Your task to perform on an android device: turn on showing notifications on the lock screen Image 0: 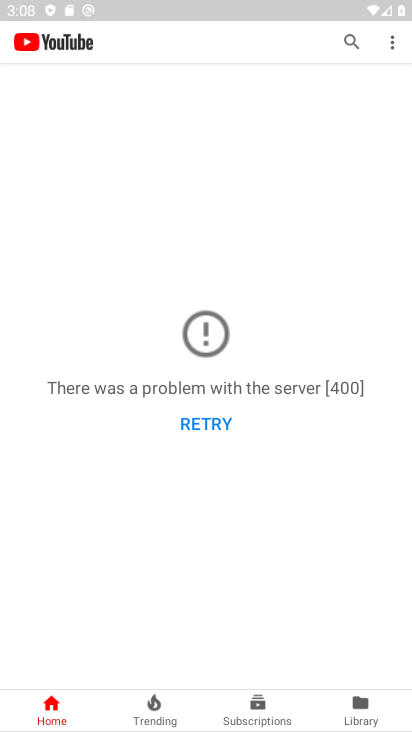
Step 0: press home button
Your task to perform on an android device: turn on showing notifications on the lock screen Image 1: 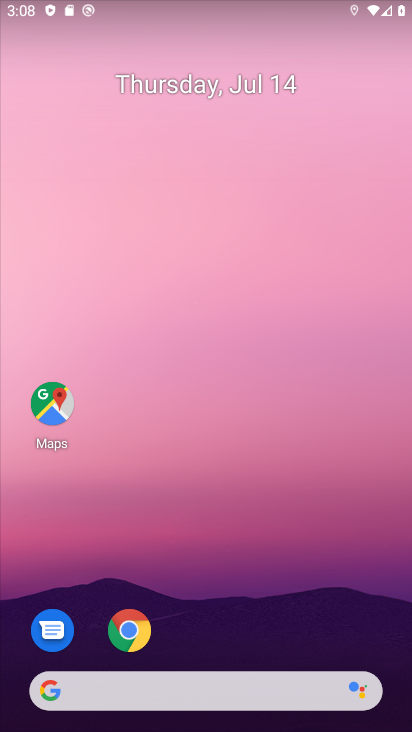
Step 1: drag from (306, 549) to (160, 14)
Your task to perform on an android device: turn on showing notifications on the lock screen Image 2: 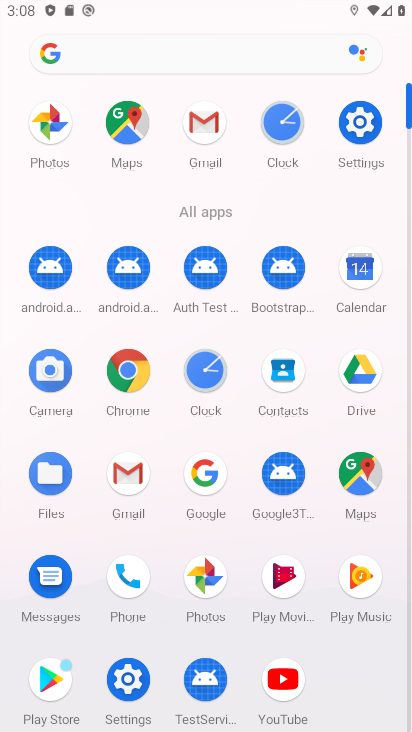
Step 2: click (134, 684)
Your task to perform on an android device: turn on showing notifications on the lock screen Image 3: 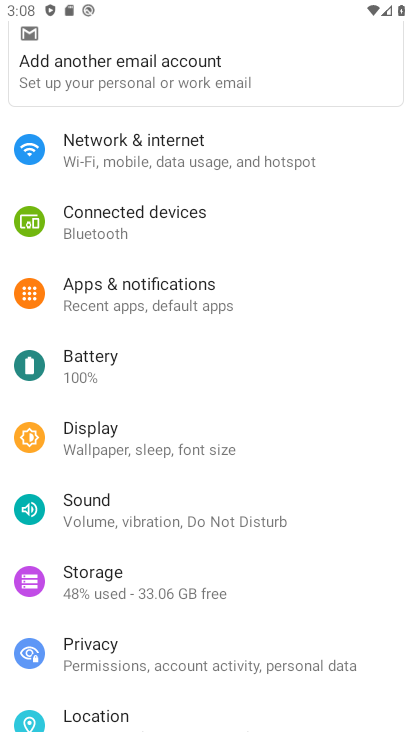
Step 3: click (182, 292)
Your task to perform on an android device: turn on showing notifications on the lock screen Image 4: 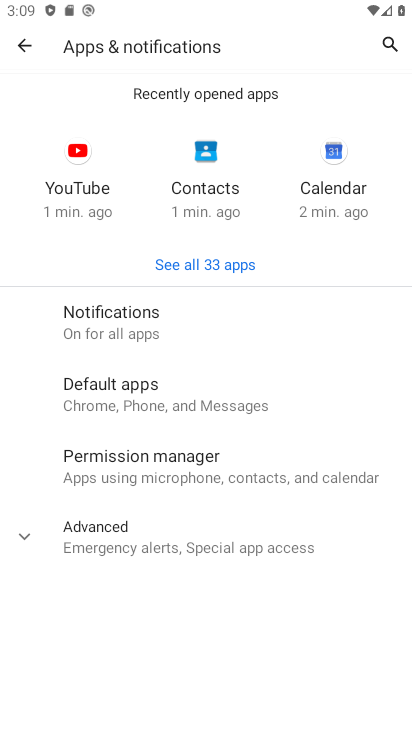
Step 4: click (103, 338)
Your task to perform on an android device: turn on showing notifications on the lock screen Image 5: 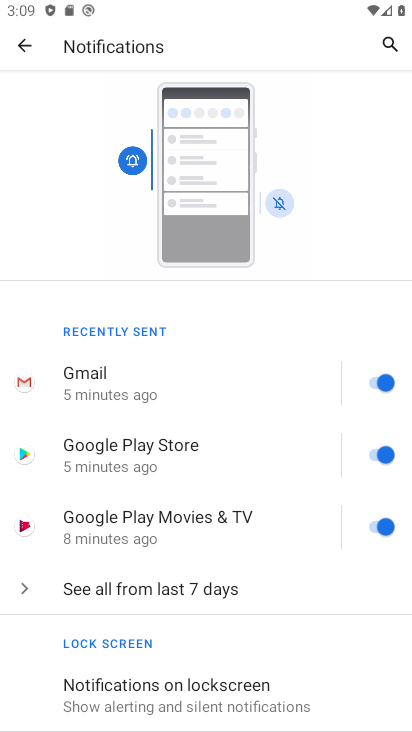
Step 5: drag from (278, 659) to (120, 360)
Your task to perform on an android device: turn on showing notifications on the lock screen Image 6: 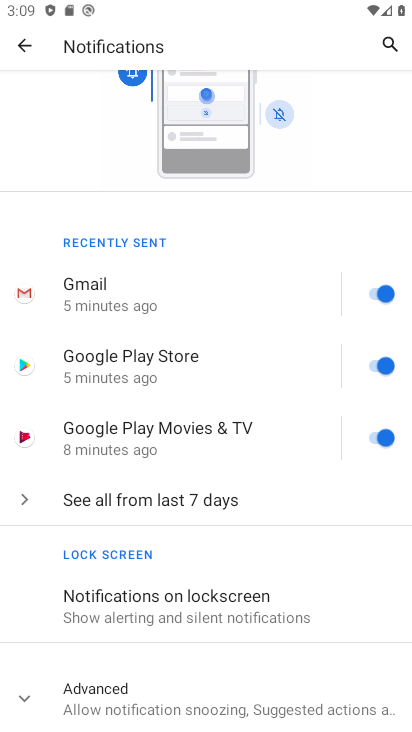
Step 6: click (249, 604)
Your task to perform on an android device: turn on showing notifications on the lock screen Image 7: 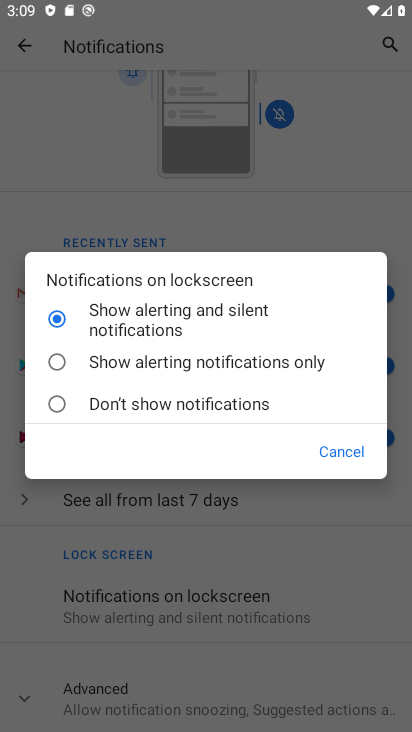
Step 7: task complete